Your task to perform on an android device: turn on location history Image 0: 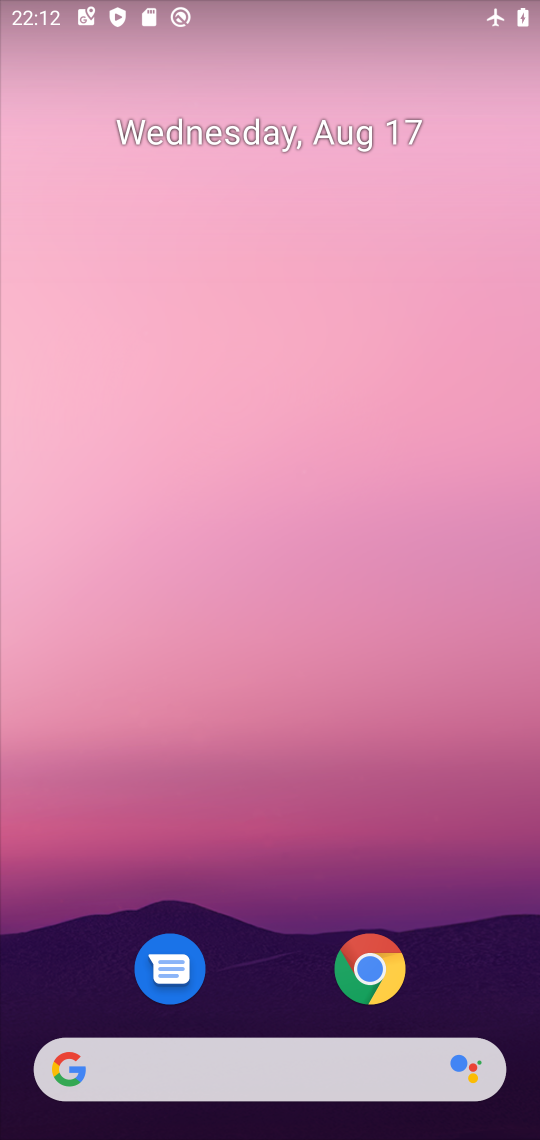
Step 0: drag from (273, 1020) to (207, 371)
Your task to perform on an android device: turn on location history Image 1: 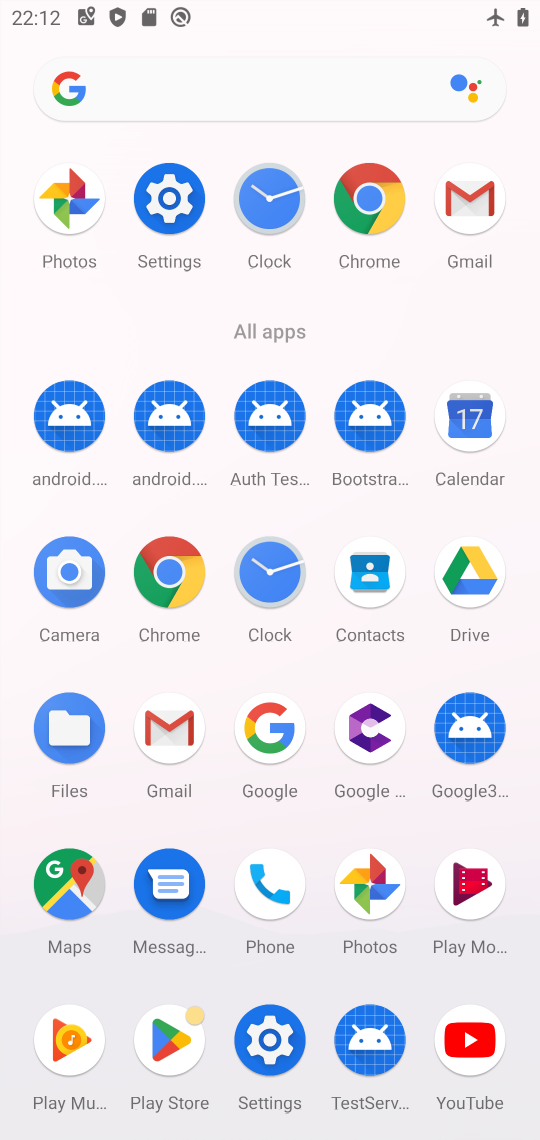
Step 1: click (166, 191)
Your task to perform on an android device: turn on location history Image 2: 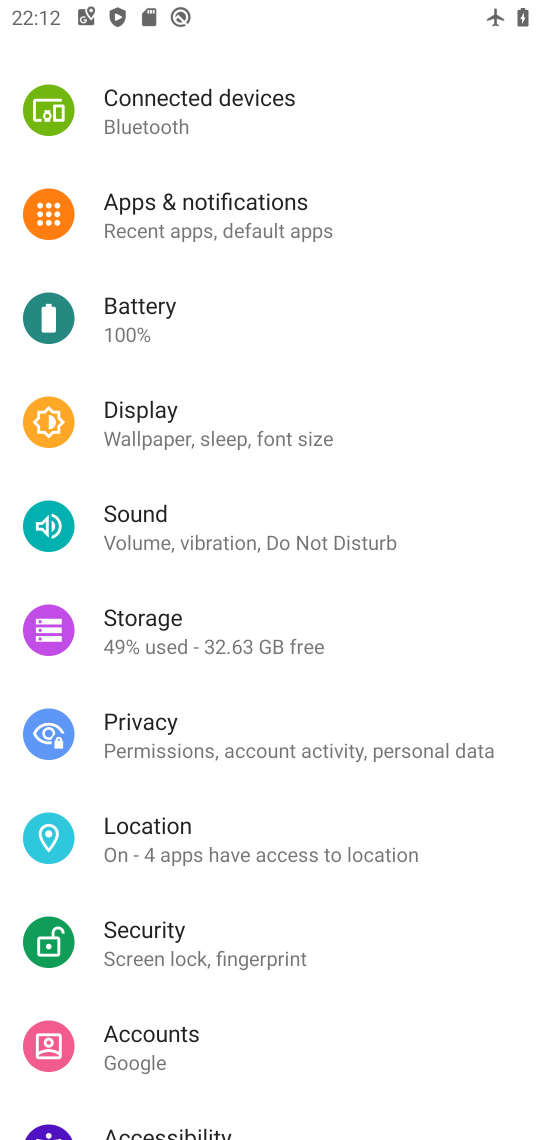
Step 2: click (156, 828)
Your task to perform on an android device: turn on location history Image 3: 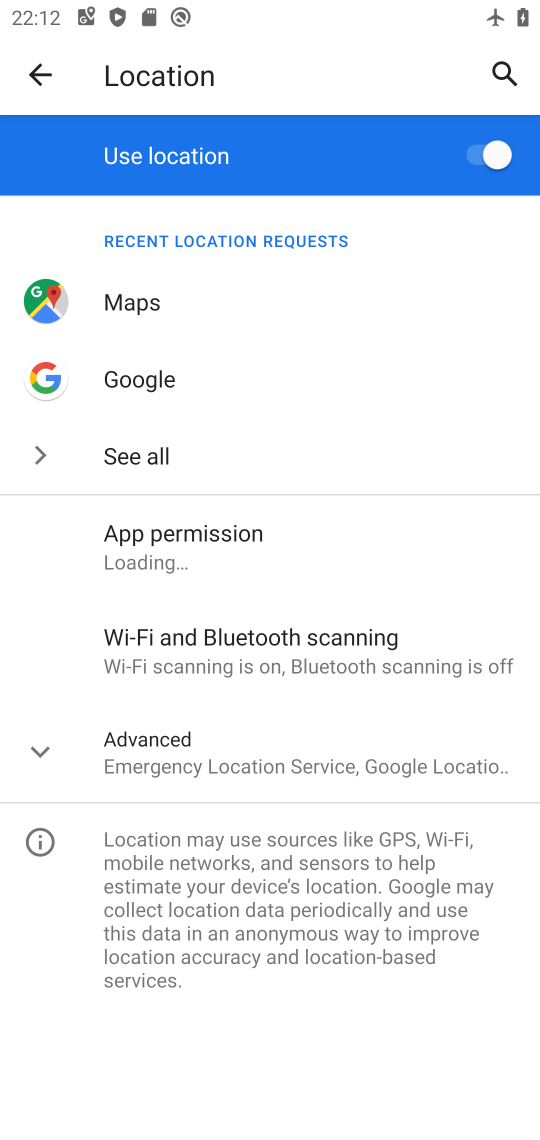
Step 3: click (71, 745)
Your task to perform on an android device: turn on location history Image 4: 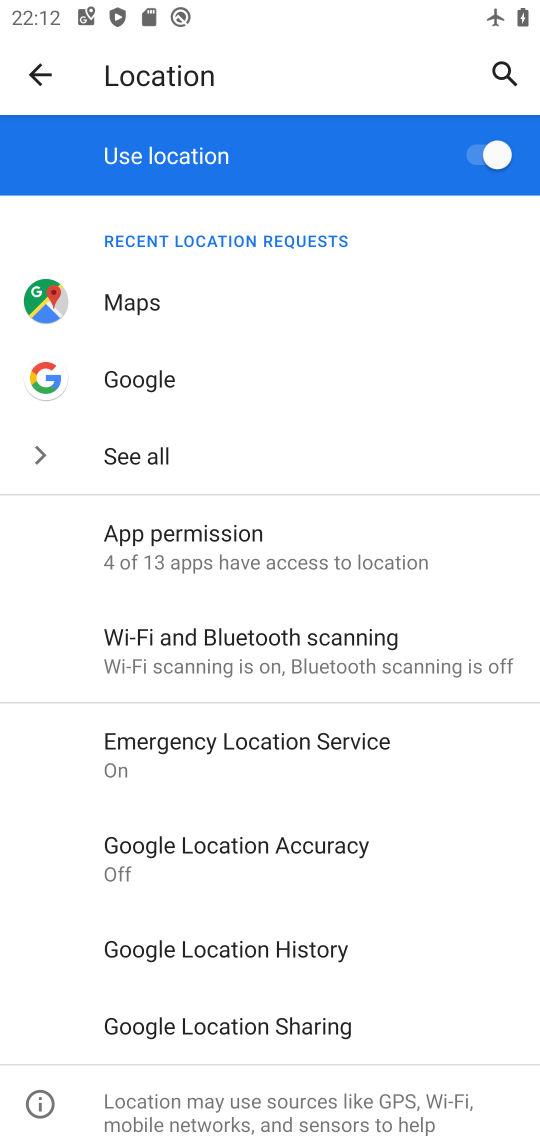
Step 4: drag from (331, 971) to (288, 745)
Your task to perform on an android device: turn on location history Image 5: 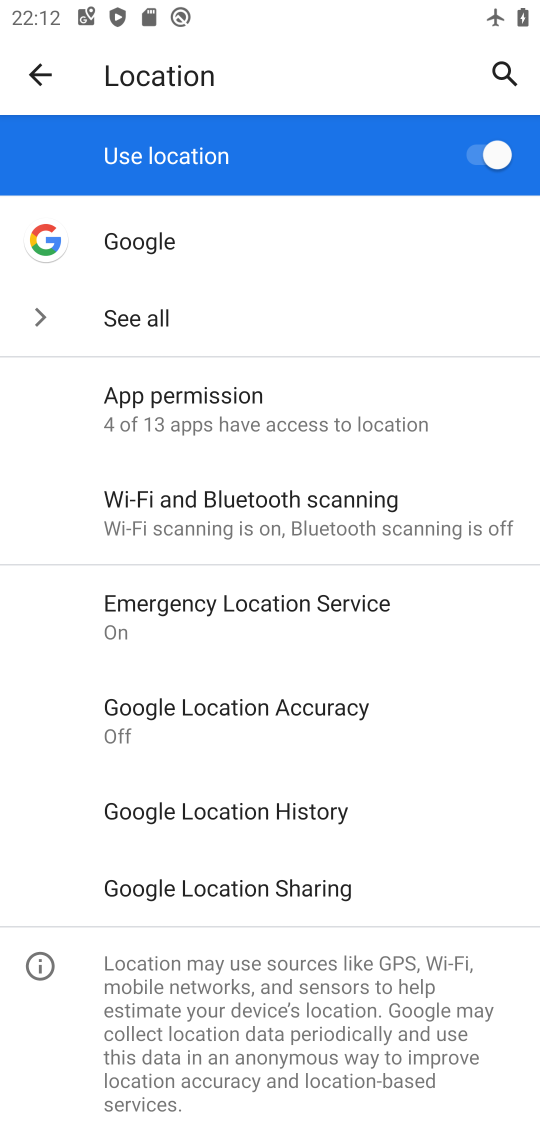
Step 5: click (238, 811)
Your task to perform on an android device: turn on location history Image 6: 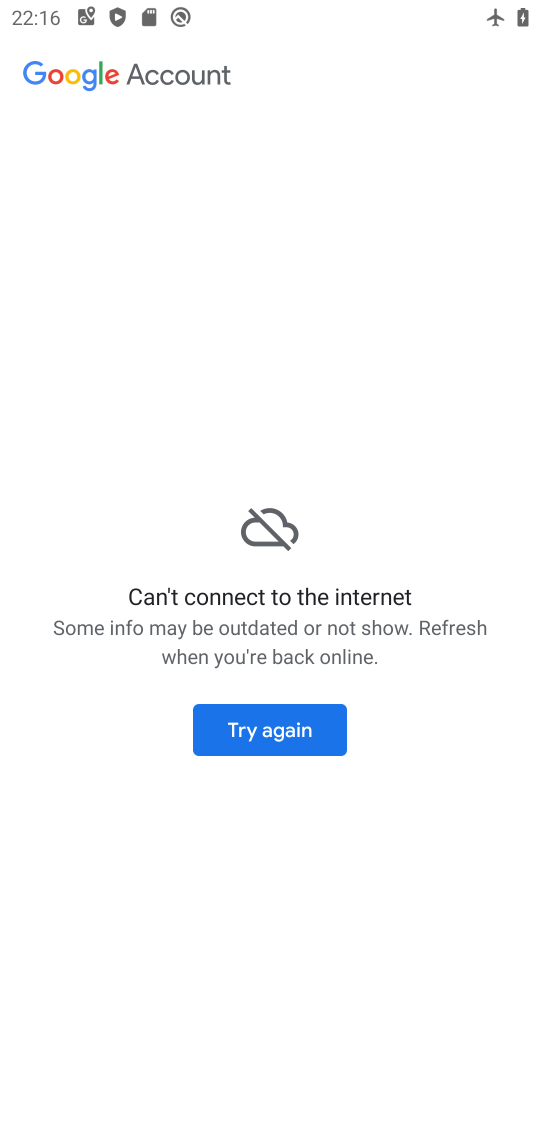
Step 6: task complete